Your task to perform on an android device: What is the news today? Image 0: 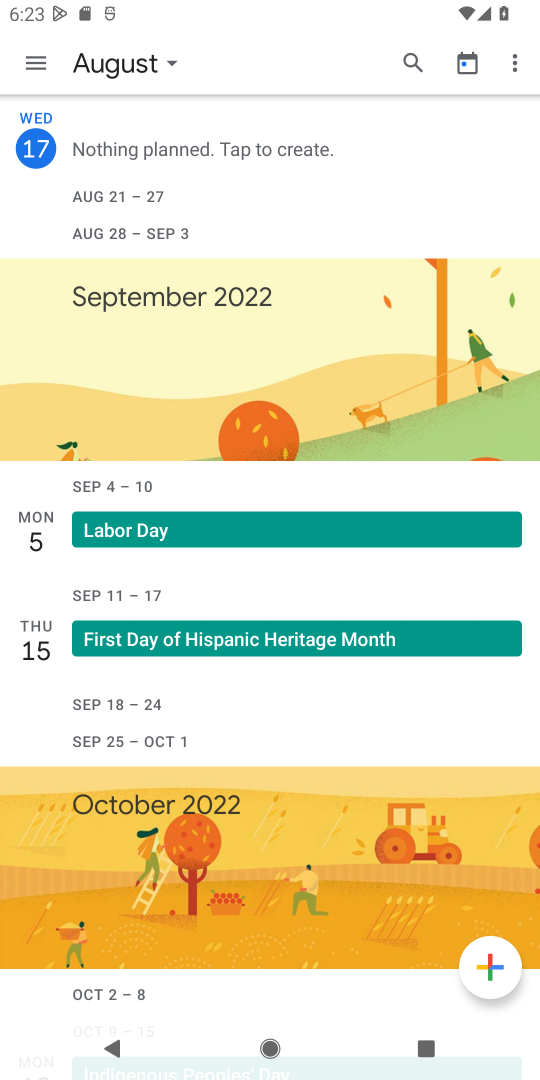
Step 0: press home button
Your task to perform on an android device: What is the news today? Image 1: 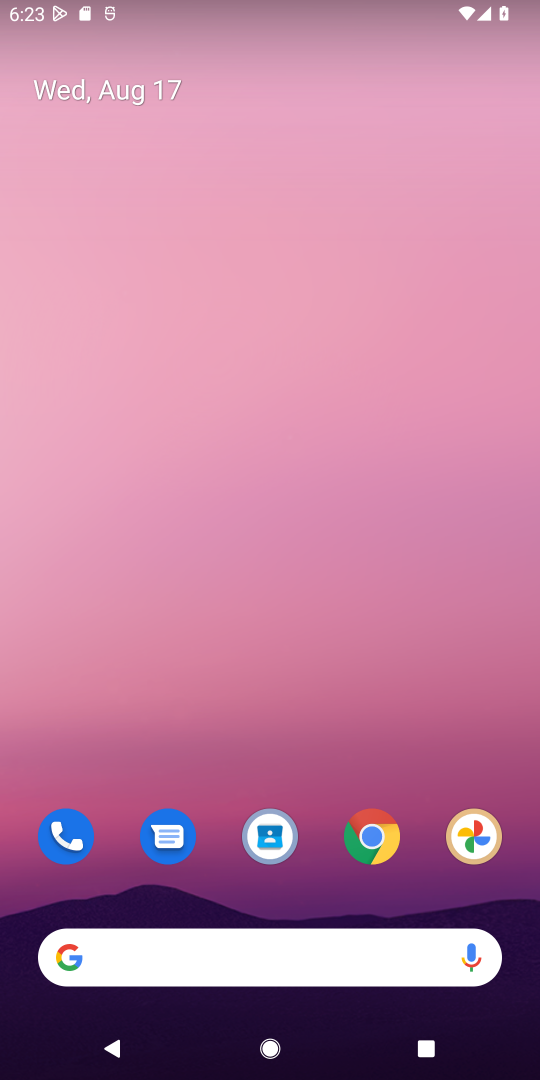
Step 1: click (170, 944)
Your task to perform on an android device: What is the news today? Image 2: 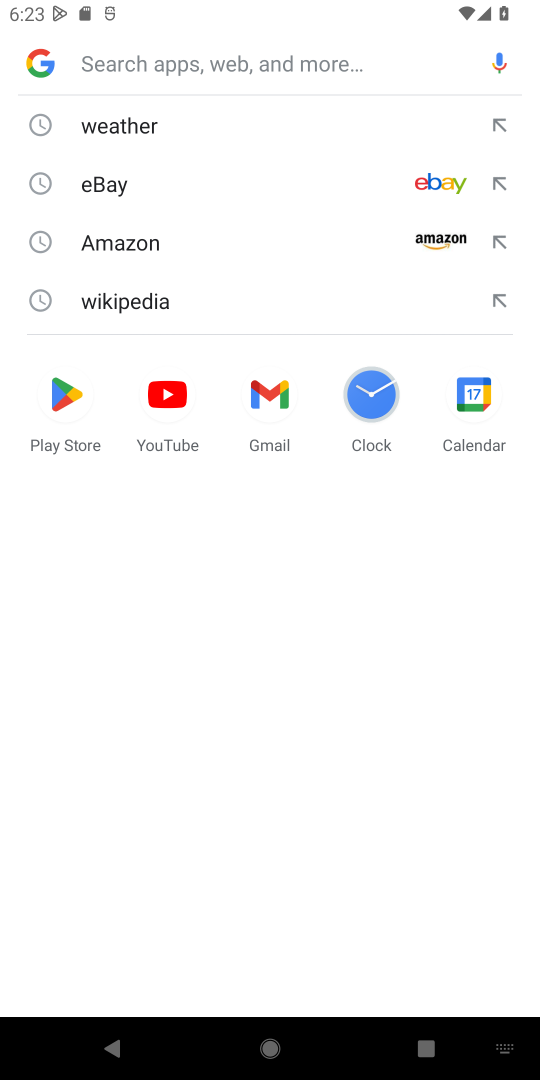
Step 2: type "What is the news today?"
Your task to perform on an android device: What is the news today? Image 3: 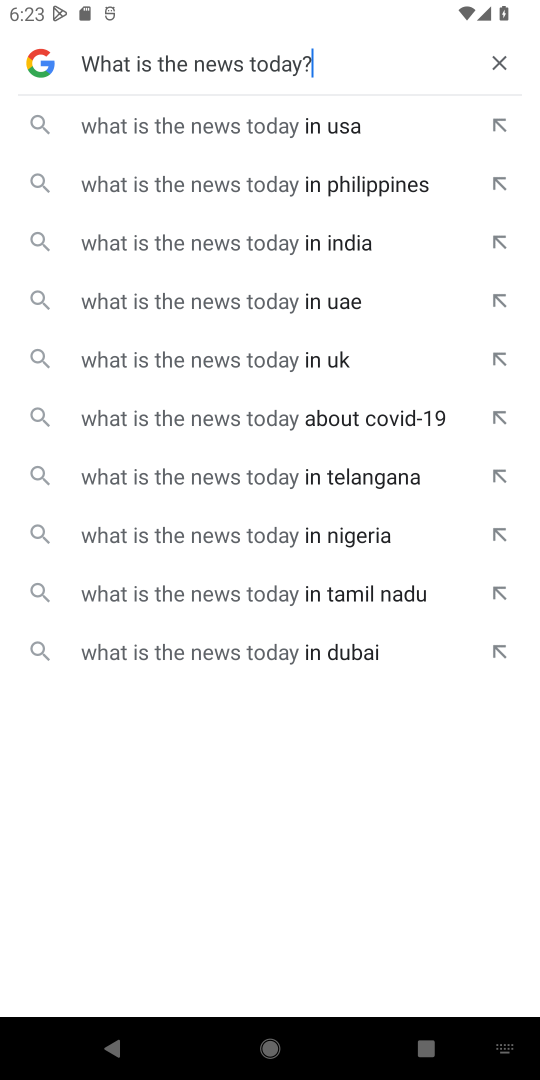
Step 3: press enter
Your task to perform on an android device: What is the news today? Image 4: 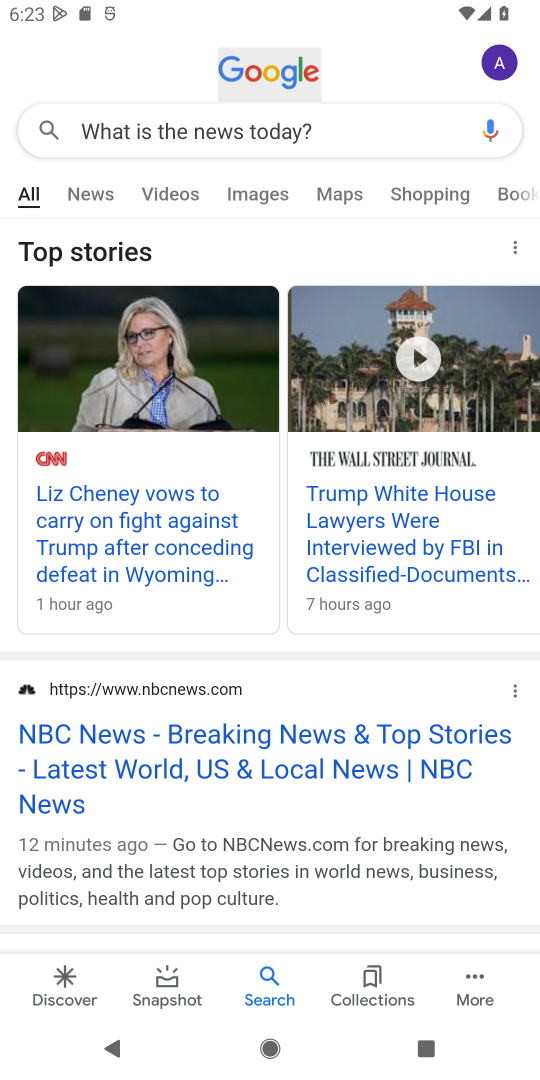
Step 4: task complete